Your task to perform on an android device: open app "Messenger Lite" (install if not already installed) Image 0: 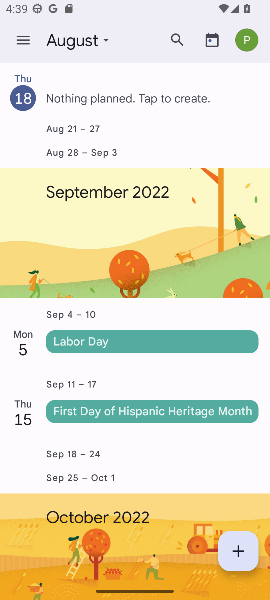
Step 0: press back button
Your task to perform on an android device: open app "Messenger Lite" (install if not already installed) Image 1: 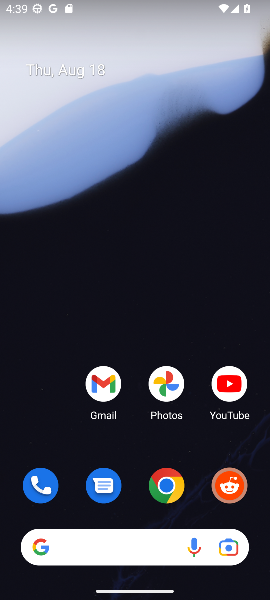
Step 1: drag from (53, 431) to (122, 94)
Your task to perform on an android device: open app "Messenger Lite" (install if not already installed) Image 2: 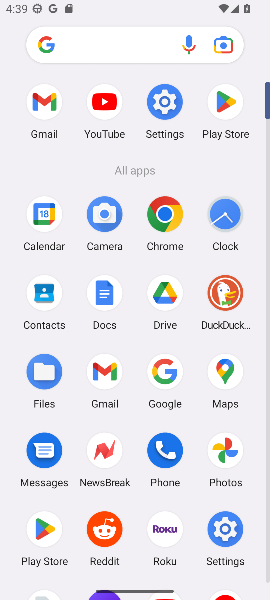
Step 2: click (220, 100)
Your task to perform on an android device: open app "Messenger Lite" (install if not already installed) Image 3: 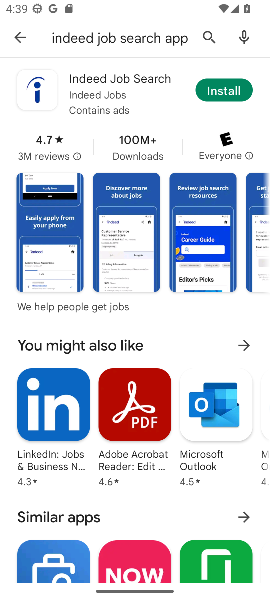
Step 3: click (214, 33)
Your task to perform on an android device: open app "Messenger Lite" (install if not already installed) Image 4: 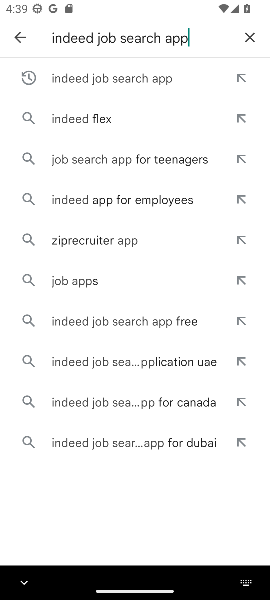
Step 4: click (246, 33)
Your task to perform on an android device: open app "Messenger Lite" (install if not already installed) Image 5: 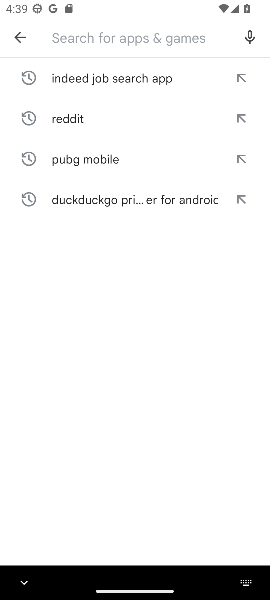
Step 5: click (117, 37)
Your task to perform on an android device: open app "Messenger Lite" (install if not already installed) Image 6: 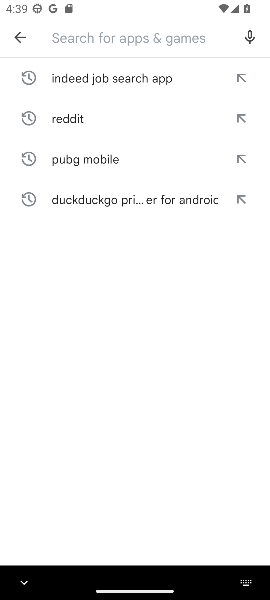
Step 6: type "messenger lite"
Your task to perform on an android device: open app "Messenger Lite" (install if not already installed) Image 7: 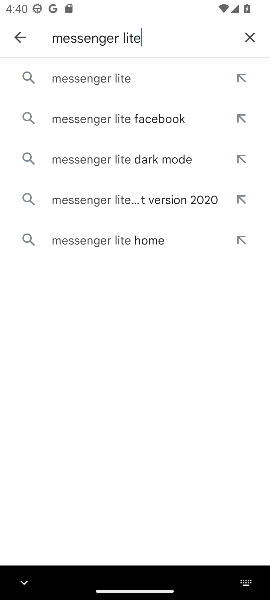
Step 7: click (99, 77)
Your task to perform on an android device: open app "Messenger Lite" (install if not already installed) Image 8: 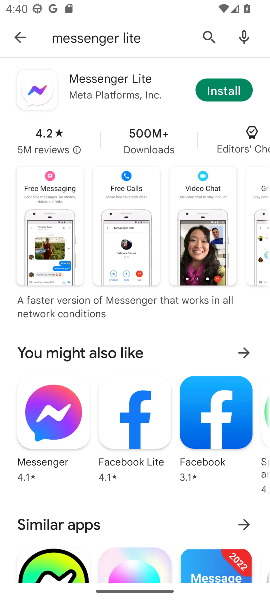
Step 8: click (230, 84)
Your task to perform on an android device: open app "Messenger Lite" (install if not already installed) Image 9: 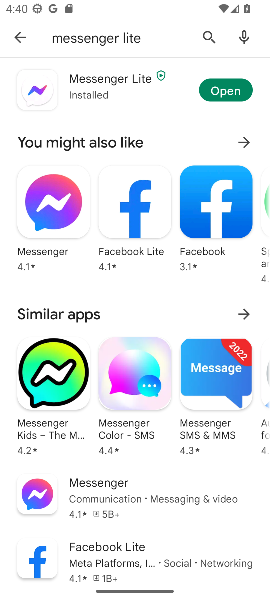
Step 9: click (217, 92)
Your task to perform on an android device: open app "Messenger Lite" (install if not already installed) Image 10: 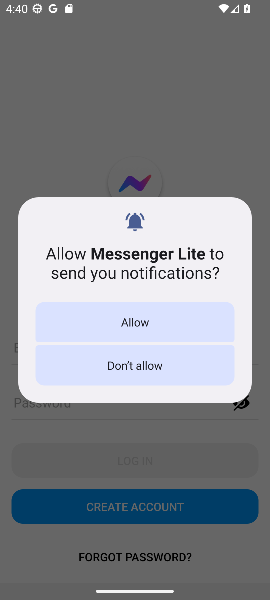
Step 10: task complete